Your task to perform on an android device: Search for asus rog on ebay, select the first entry, and add it to the cart. Image 0: 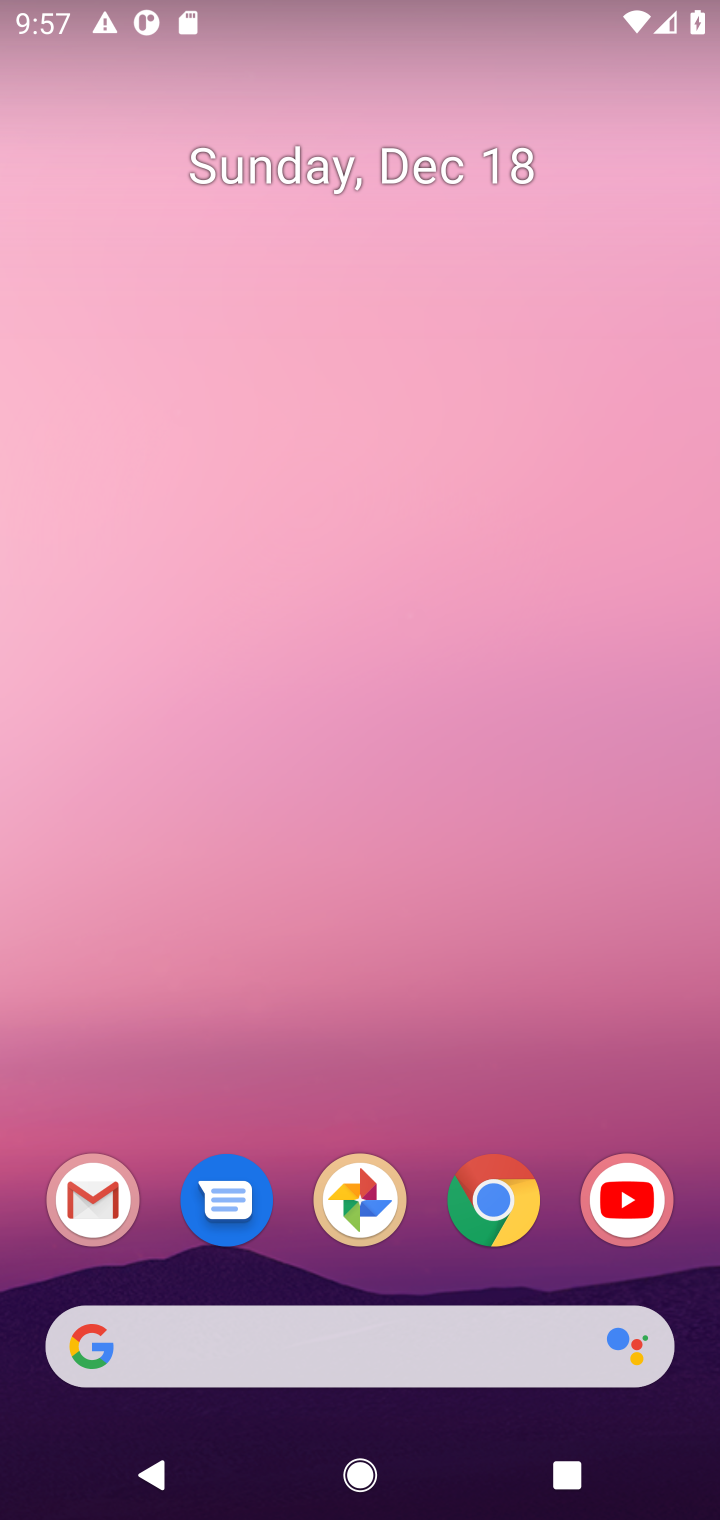
Step 0: click (490, 1206)
Your task to perform on an android device: Search for asus rog on ebay, select the first entry, and add it to the cart. Image 1: 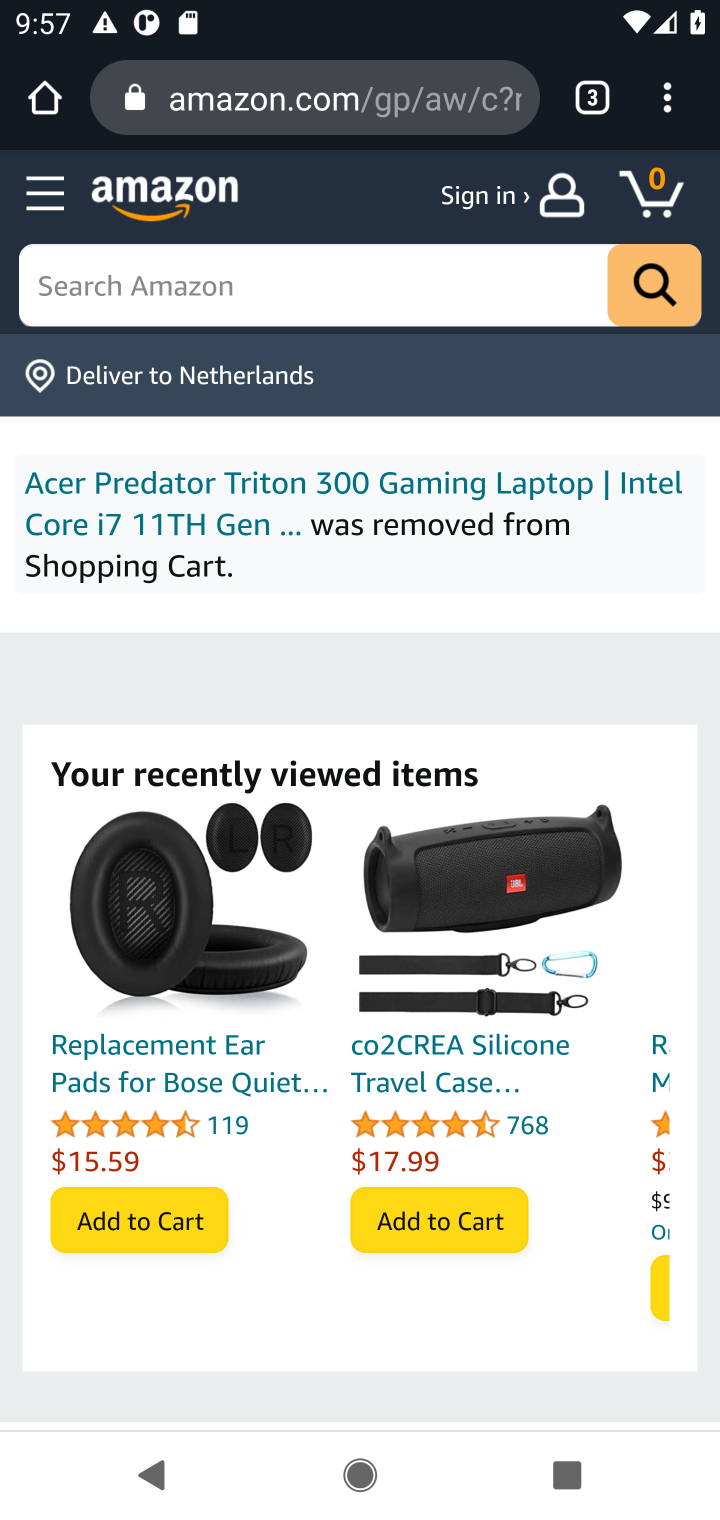
Step 1: click (261, 114)
Your task to perform on an android device: Search for asus rog on ebay, select the first entry, and add it to the cart. Image 2: 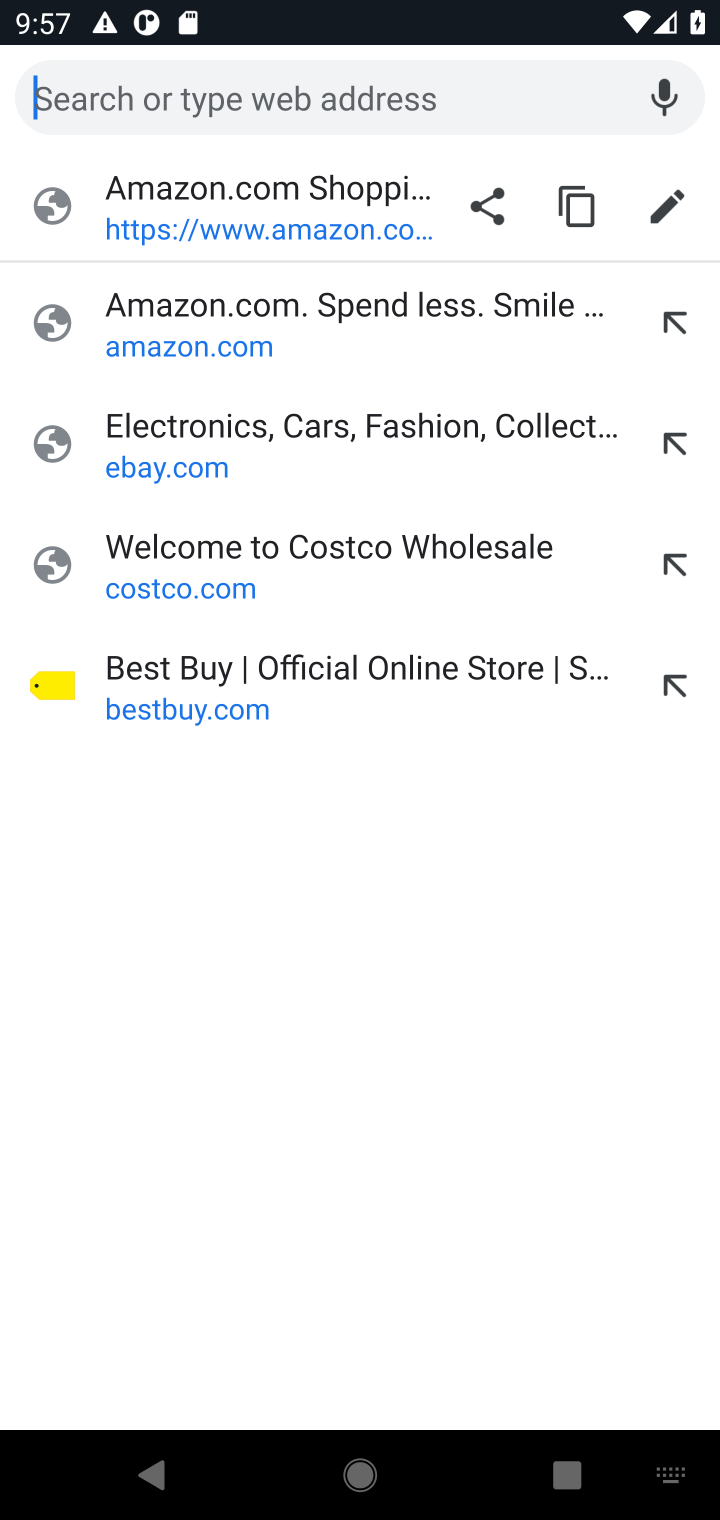
Step 2: click (147, 446)
Your task to perform on an android device: Search for asus rog on ebay, select the first entry, and add it to the cart. Image 3: 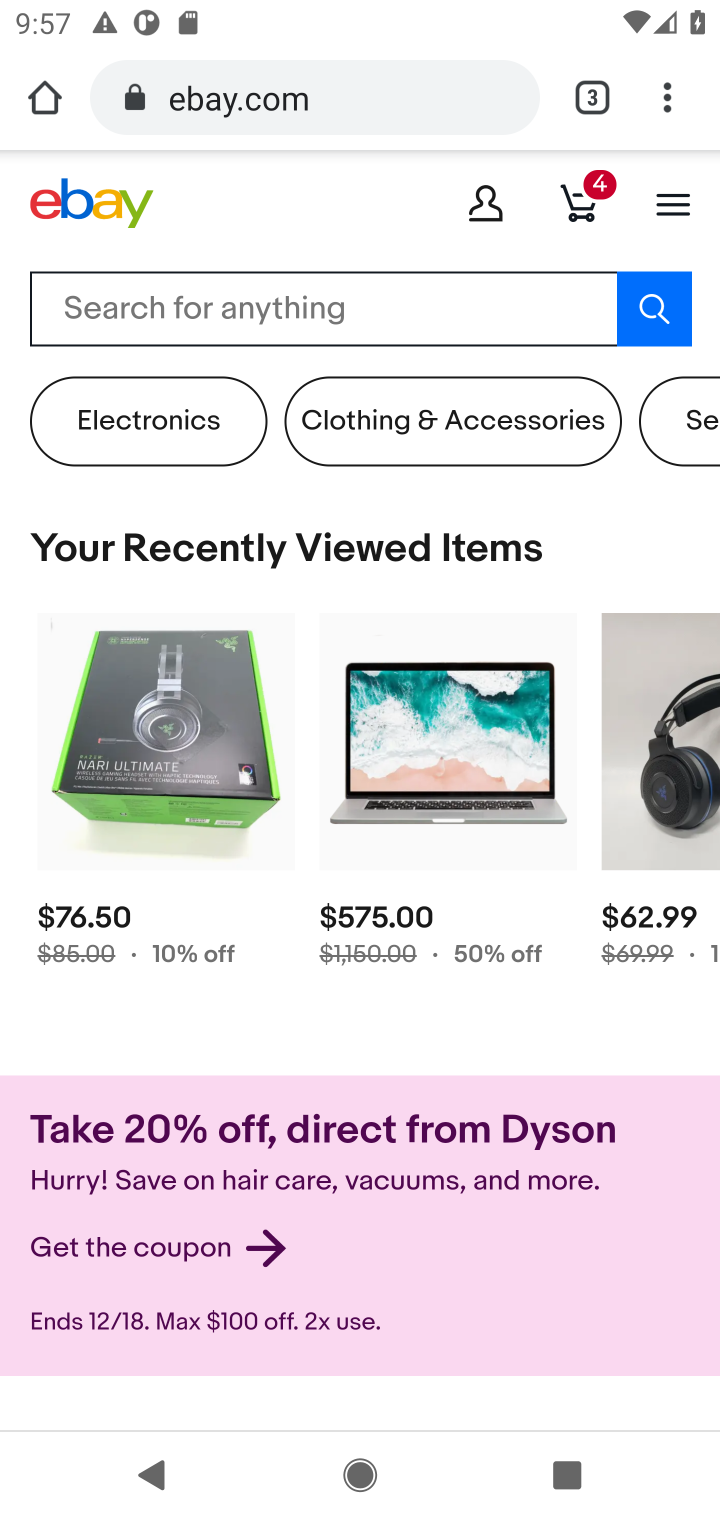
Step 3: click (108, 312)
Your task to perform on an android device: Search for asus rog on ebay, select the first entry, and add it to the cart. Image 4: 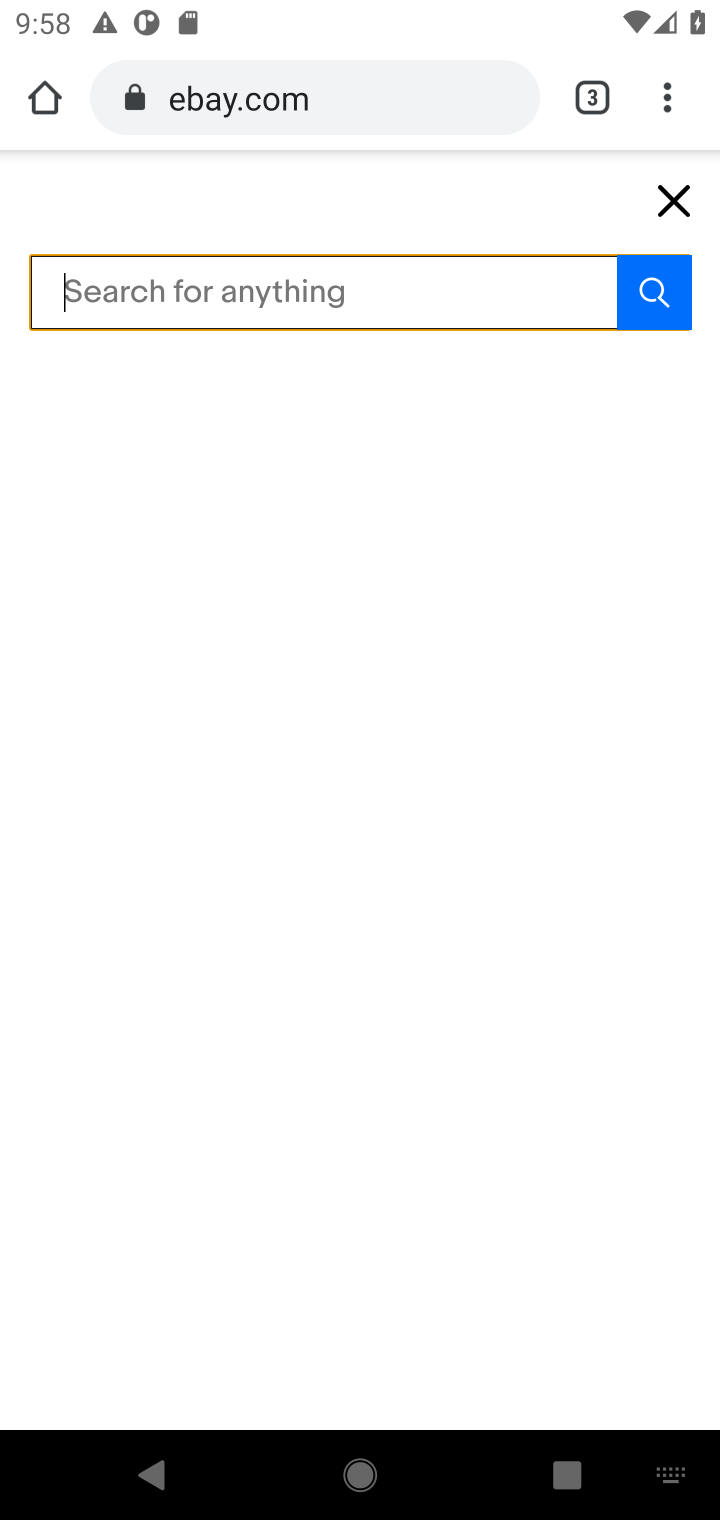
Step 4: type "asus rog"
Your task to perform on an android device: Search for asus rog on ebay, select the first entry, and add it to the cart. Image 5: 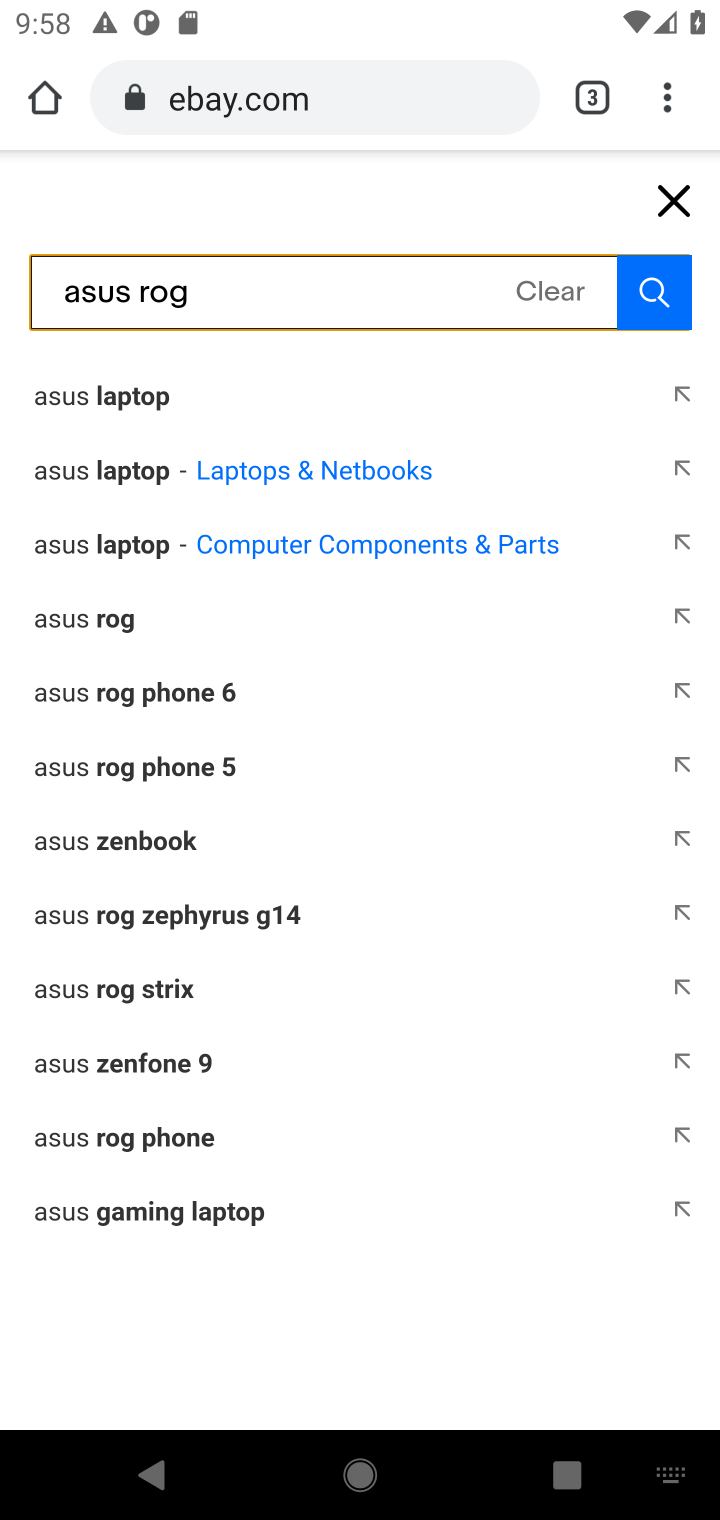
Step 5: click (64, 626)
Your task to perform on an android device: Search for asus rog on ebay, select the first entry, and add it to the cart. Image 6: 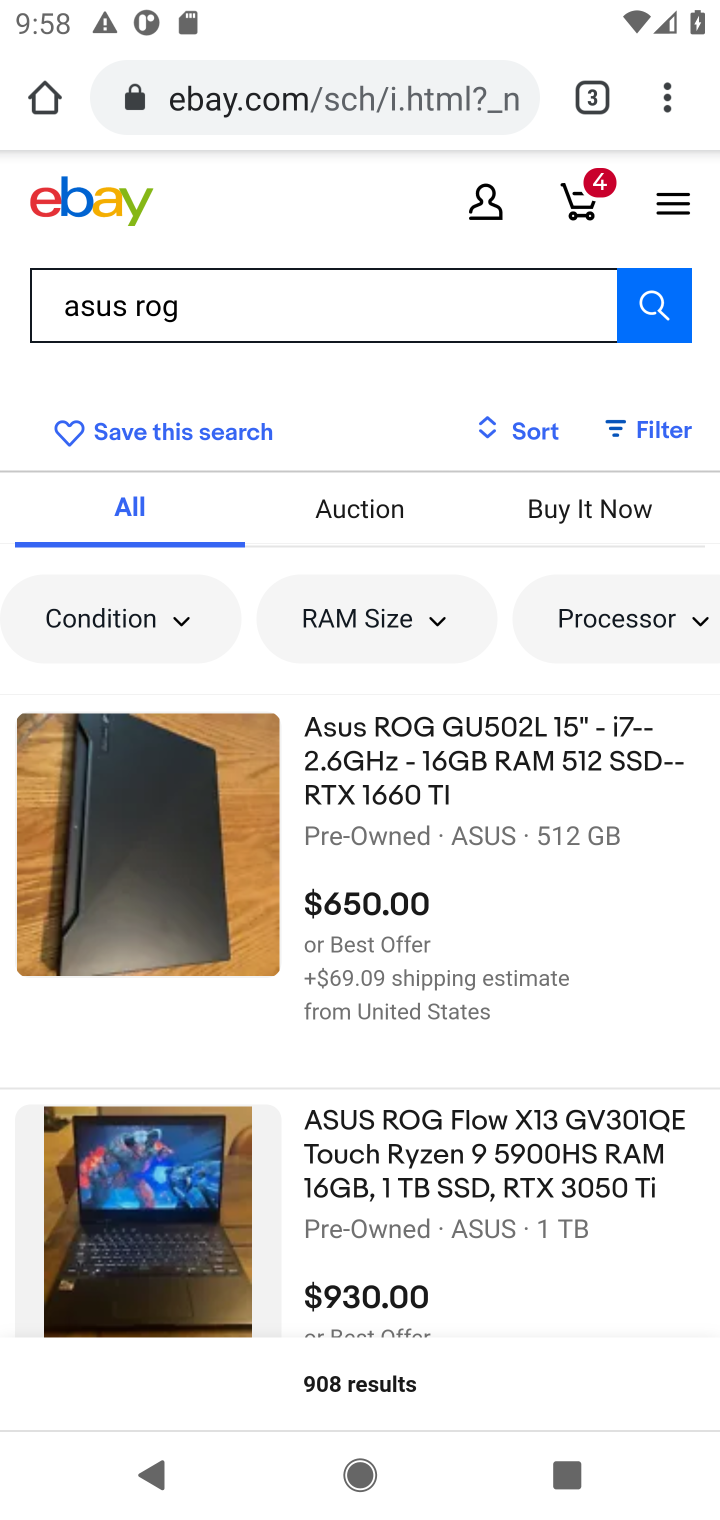
Step 6: click (376, 776)
Your task to perform on an android device: Search for asus rog on ebay, select the first entry, and add it to the cart. Image 7: 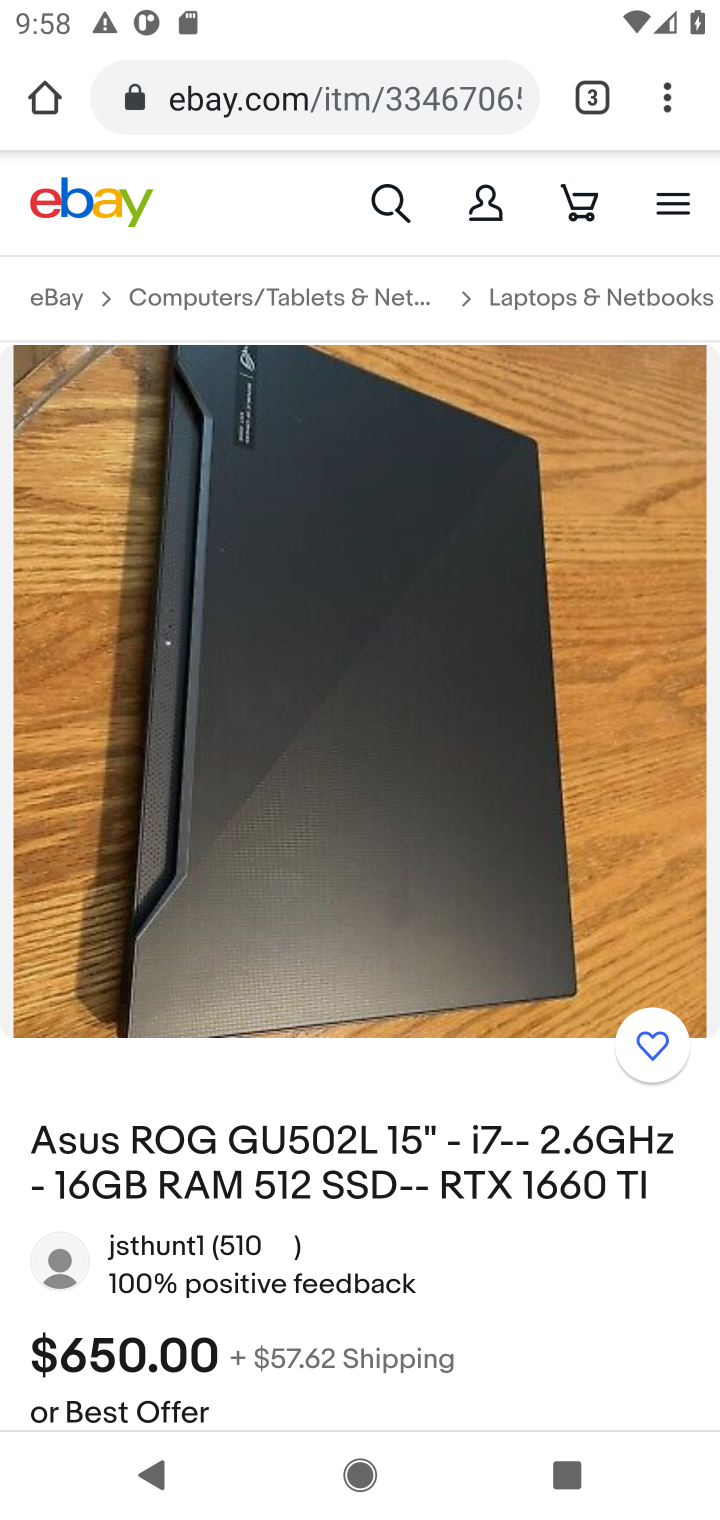
Step 7: drag from (280, 985) to (268, 390)
Your task to perform on an android device: Search for asus rog on ebay, select the first entry, and add it to the cart. Image 8: 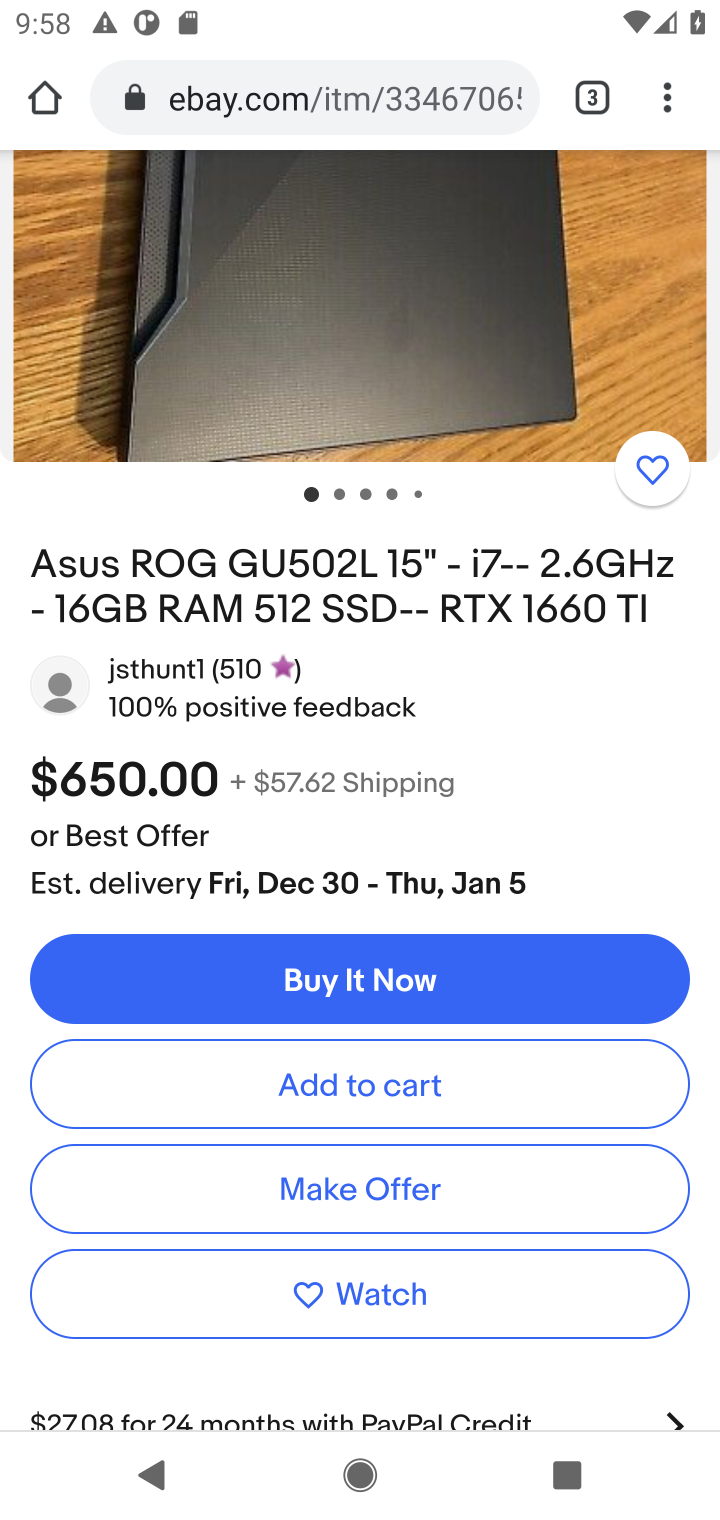
Step 8: click (294, 1094)
Your task to perform on an android device: Search for asus rog on ebay, select the first entry, and add it to the cart. Image 9: 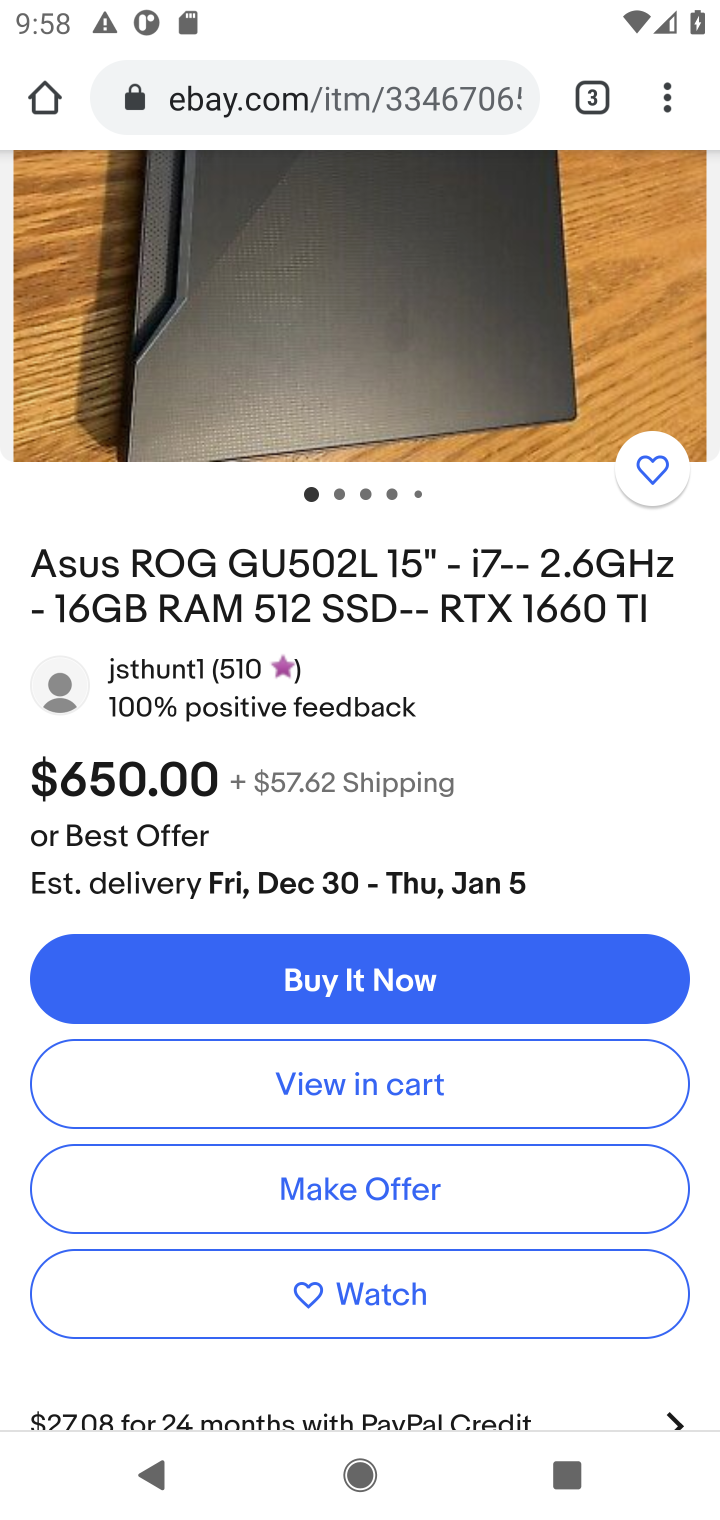
Step 9: task complete